Your task to perform on an android device: turn on wifi Image 0: 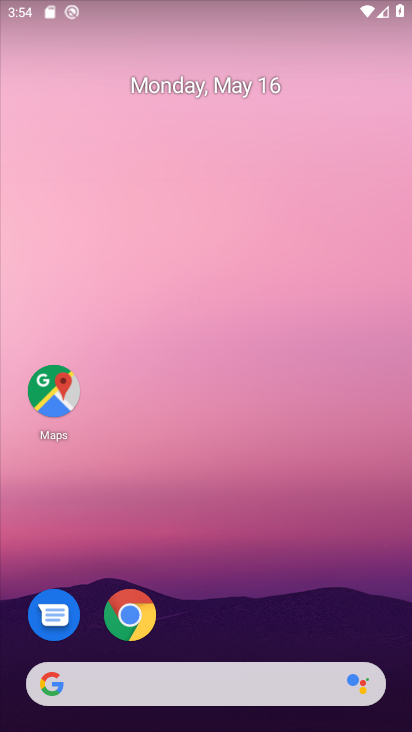
Step 0: drag from (230, 610) to (365, 57)
Your task to perform on an android device: turn on wifi Image 1: 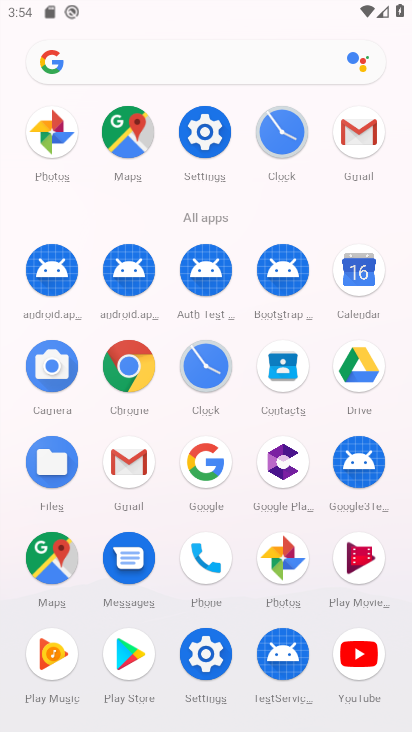
Step 1: click (172, 150)
Your task to perform on an android device: turn on wifi Image 2: 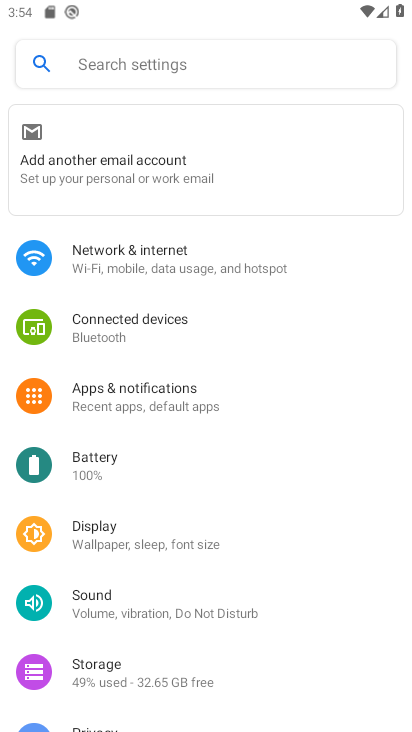
Step 2: click (154, 263)
Your task to perform on an android device: turn on wifi Image 3: 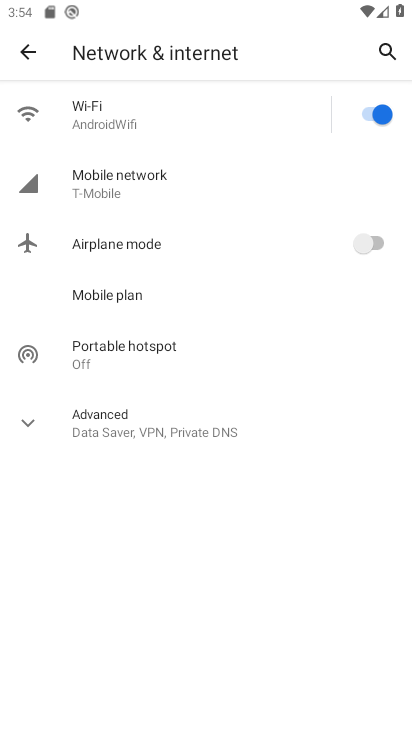
Step 3: task complete